Your task to perform on an android device: Go to Google Image 0: 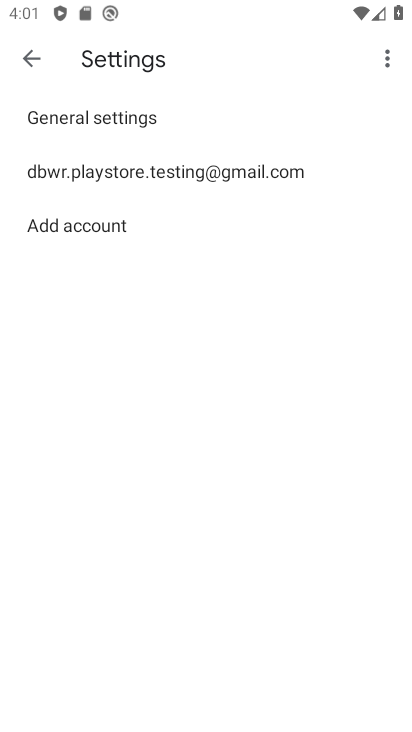
Step 0: press home button
Your task to perform on an android device: Go to Google Image 1: 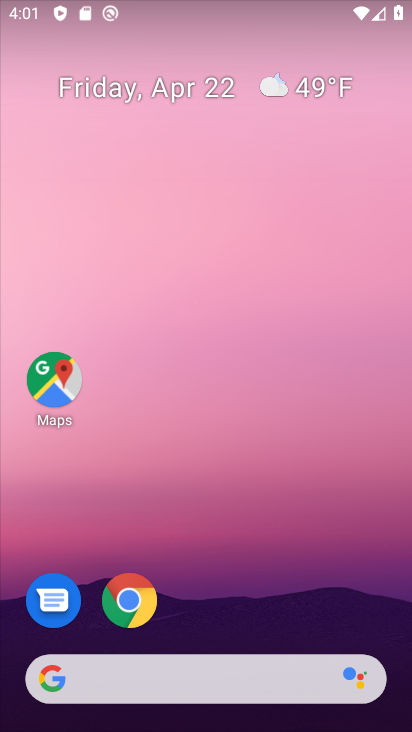
Step 1: drag from (211, 511) to (244, 33)
Your task to perform on an android device: Go to Google Image 2: 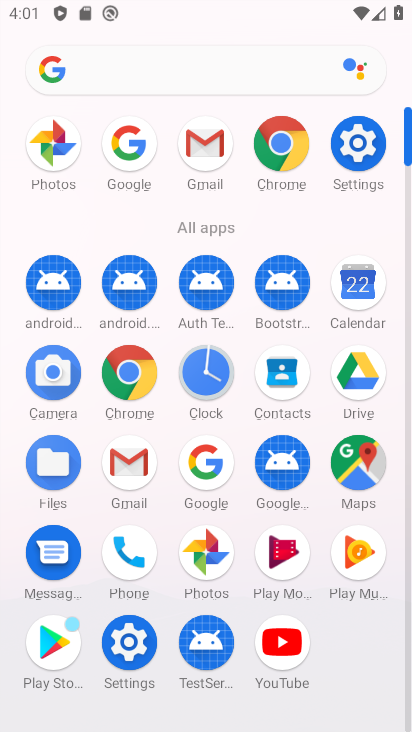
Step 2: click (126, 140)
Your task to perform on an android device: Go to Google Image 3: 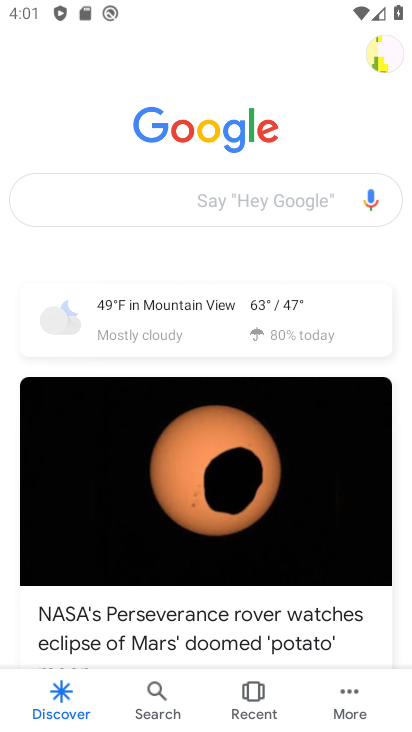
Step 3: task complete